Your task to perform on an android device: turn on location history Image 0: 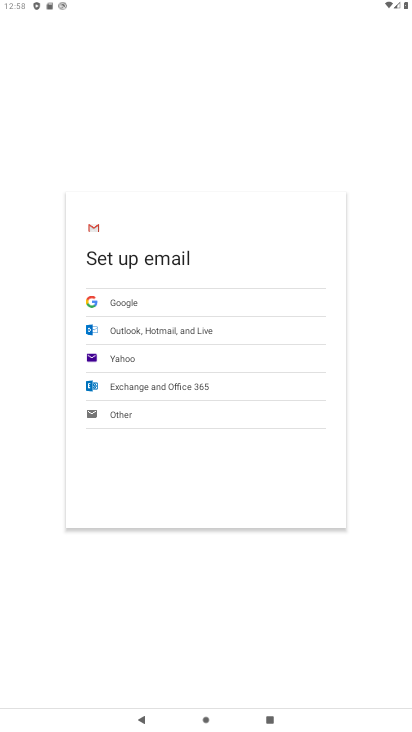
Step 0: press home button
Your task to perform on an android device: turn on location history Image 1: 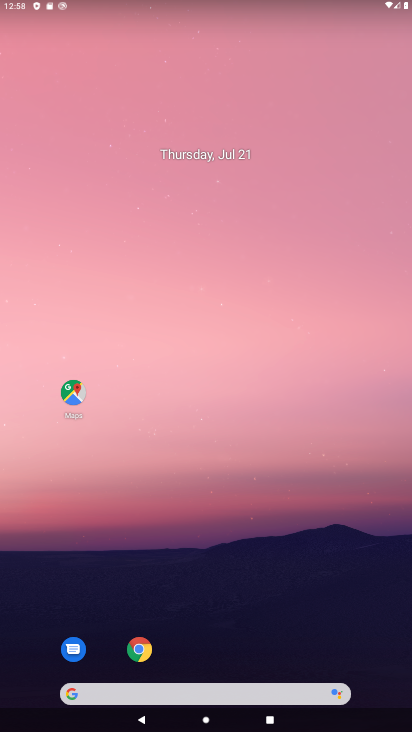
Step 1: click (72, 392)
Your task to perform on an android device: turn on location history Image 2: 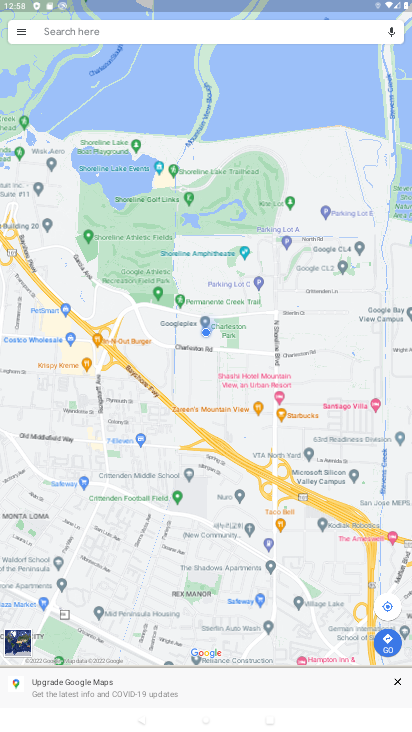
Step 2: click (22, 27)
Your task to perform on an android device: turn on location history Image 3: 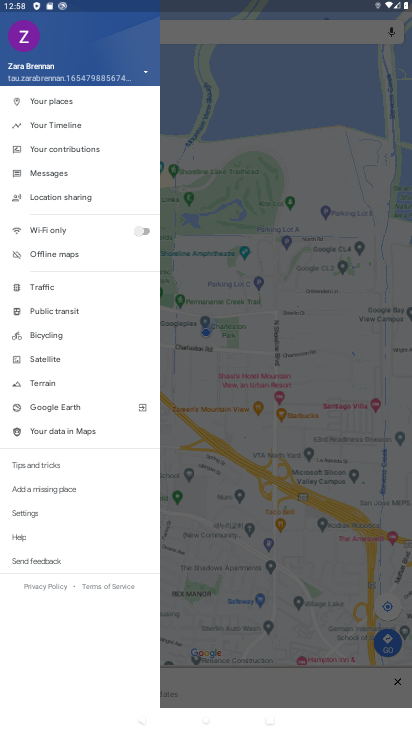
Step 3: click (54, 121)
Your task to perform on an android device: turn on location history Image 4: 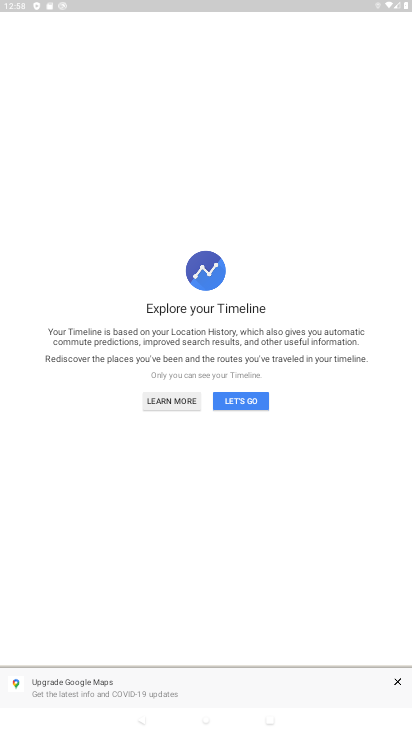
Step 4: click (246, 407)
Your task to perform on an android device: turn on location history Image 5: 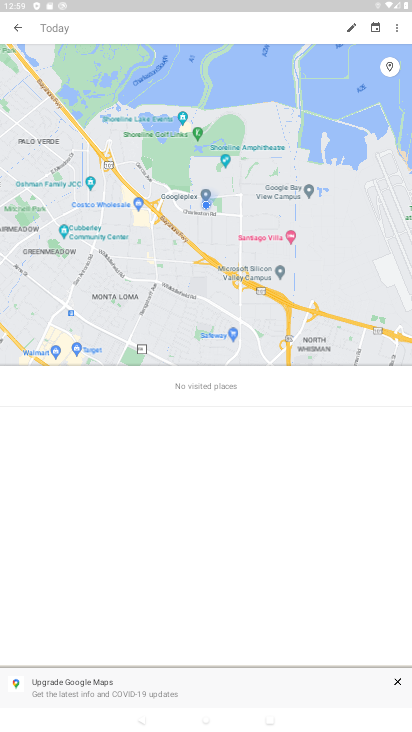
Step 5: click (397, 31)
Your task to perform on an android device: turn on location history Image 6: 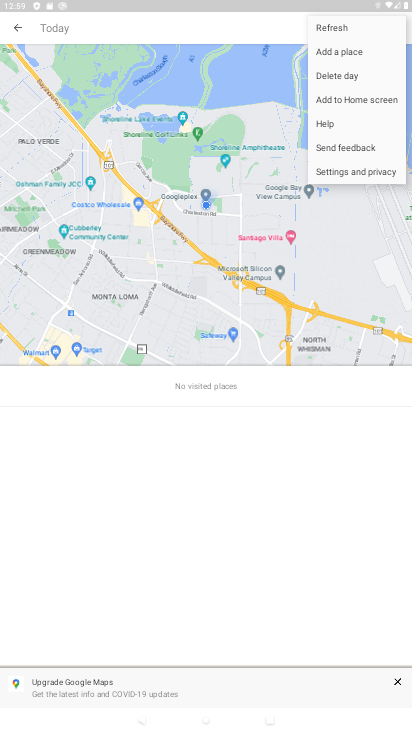
Step 6: click (380, 170)
Your task to perform on an android device: turn on location history Image 7: 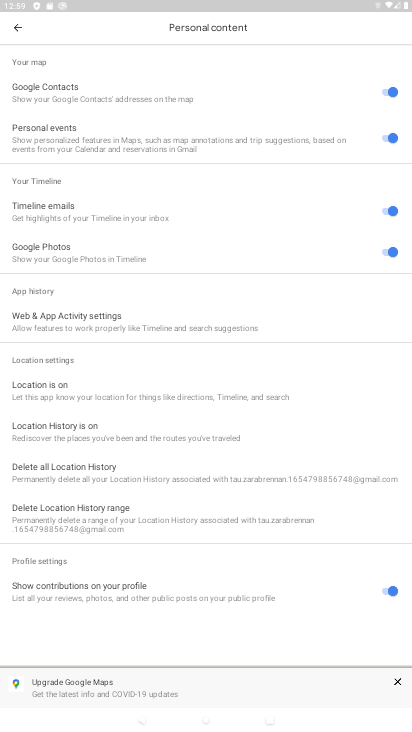
Step 7: click (250, 437)
Your task to perform on an android device: turn on location history Image 8: 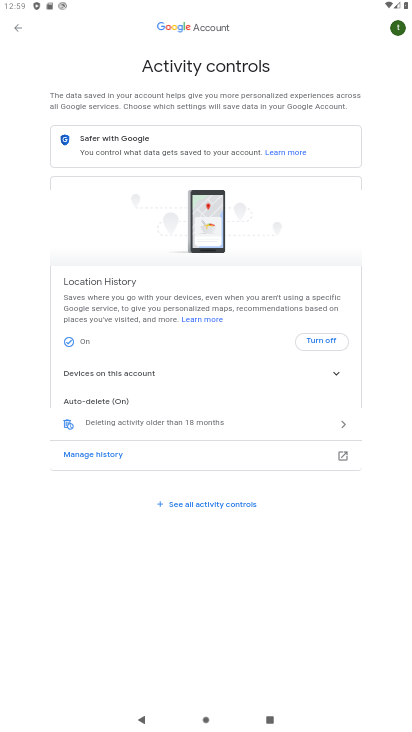
Step 8: task complete